Your task to perform on an android device: Check out the top rated books on Goodreads. Image 0: 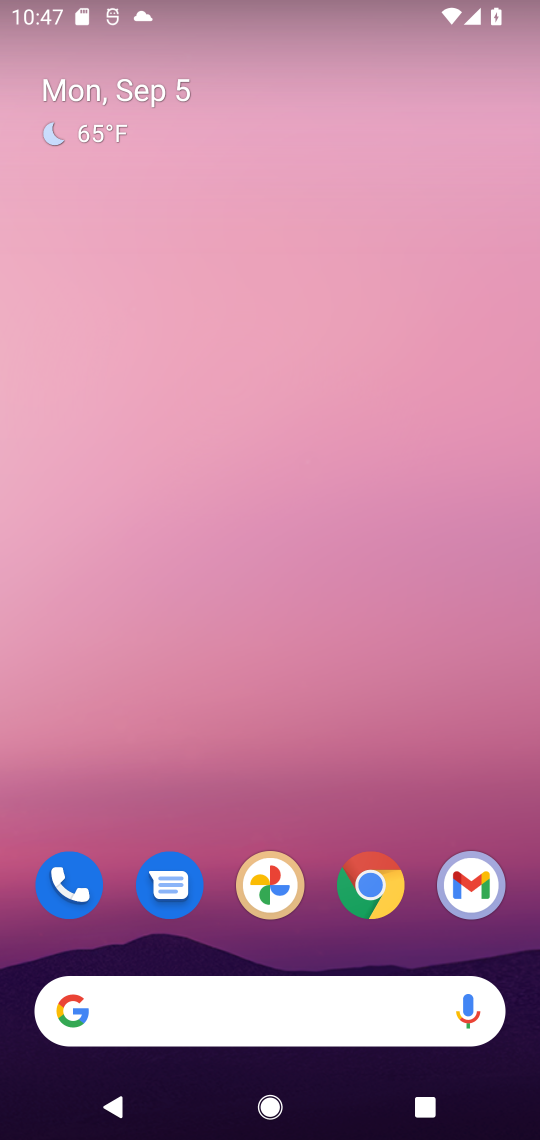
Step 0: drag from (309, 883) to (311, 101)
Your task to perform on an android device: Check out the top rated books on Goodreads. Image 1: 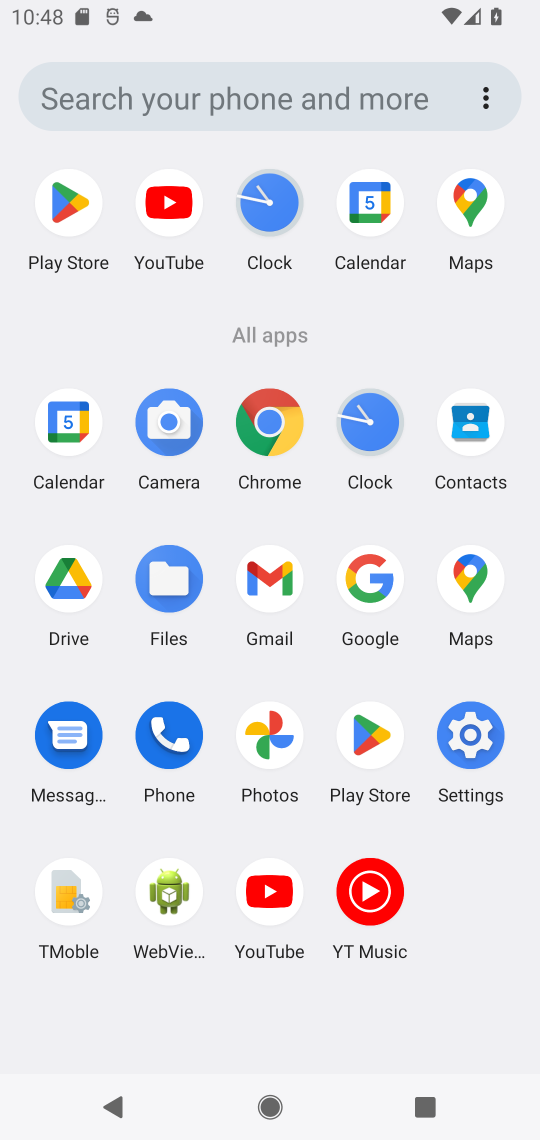
Step 1: click (371, 586)
Your task to perform on an android device: Check out the top rated books on Goodreads. Image 2: 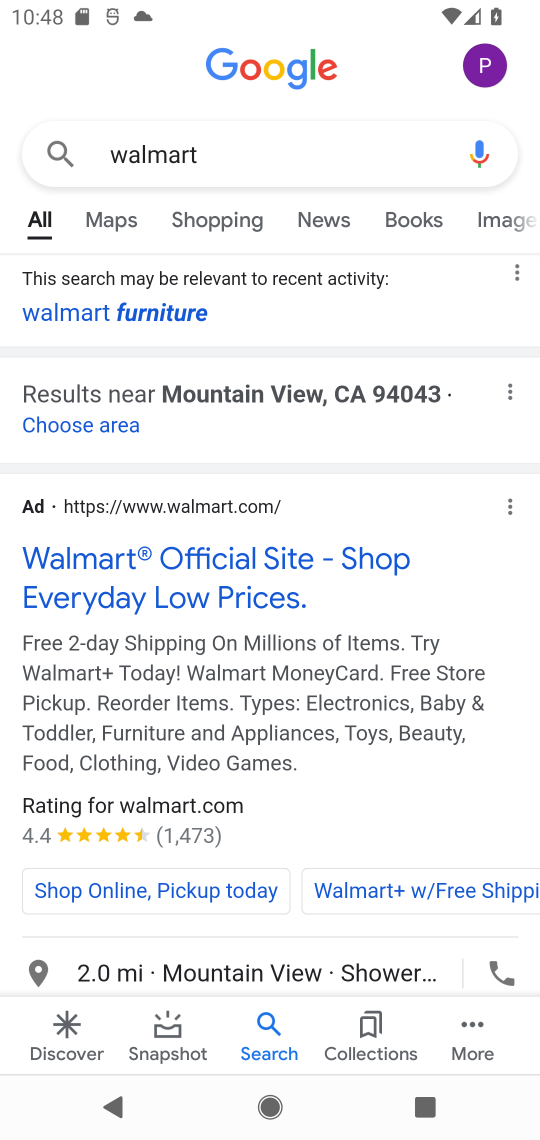
Step 2: click (299, 148)
Your task to perform on an android device: Check out the top rated books on Goodreads. Image 3: 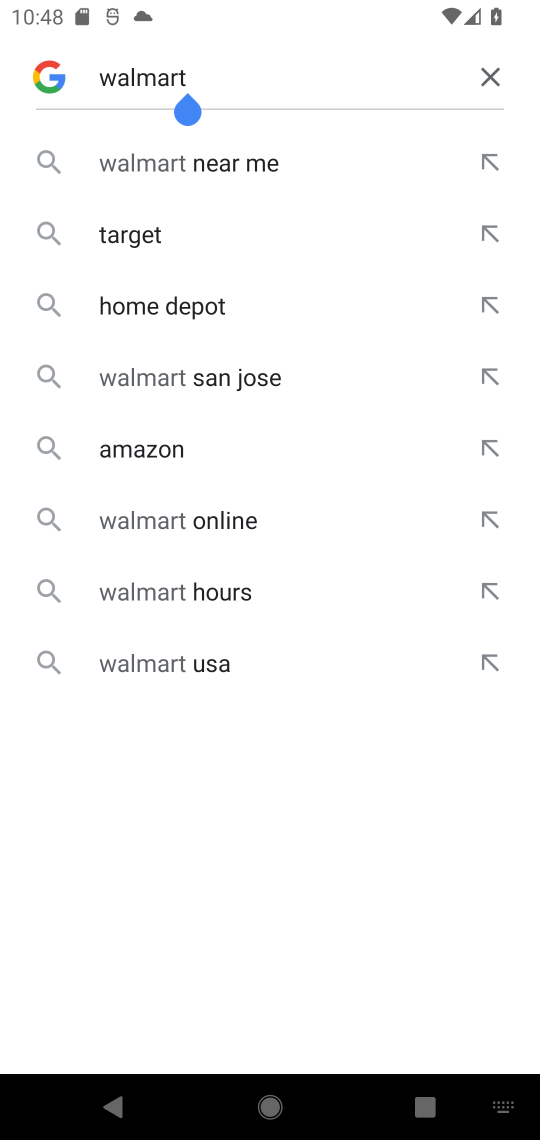
Step 3: click (490, 76)
Your task to perform on an android device: Check out the top rated books on Goodreads. Image 4: 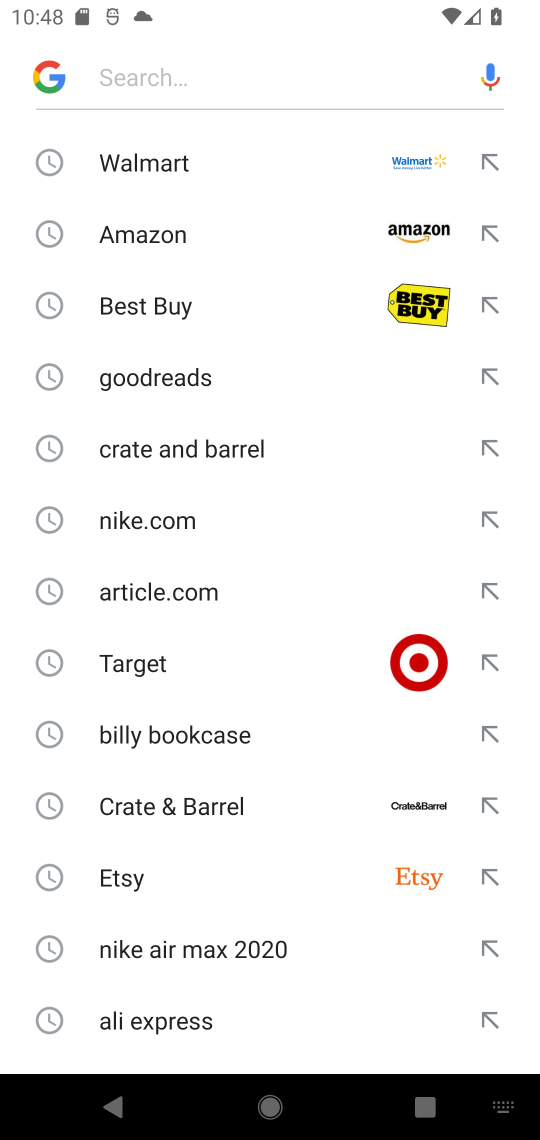
Step 4: type "Goodreads"
Your task to perform on an android device: Check out the top rated books on Goodreads. Image 5: 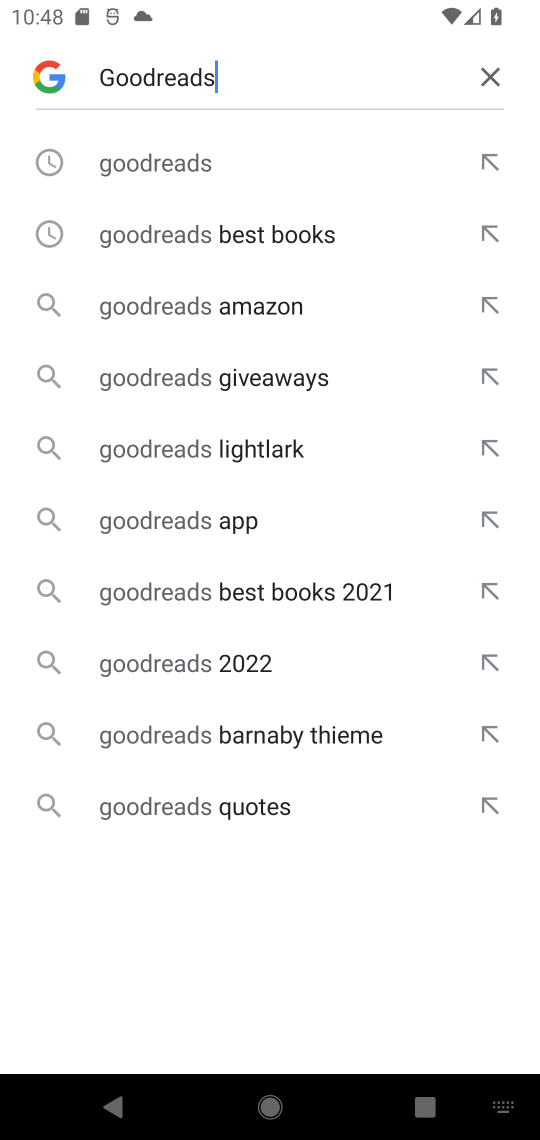
Step 5: click (176, 161)
Your task to perform on an android device: Check out the top rated books on Goodreads. Image 6: 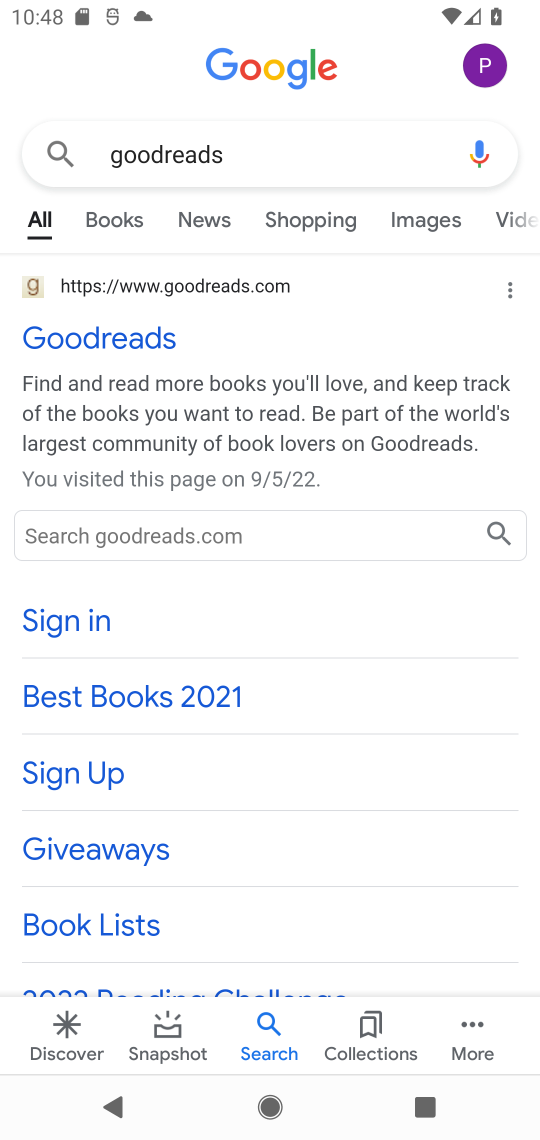
Step 6: click (85, 335)
Your task to perform on an android device: Check out the top rated books on Goodreads. Image 7: 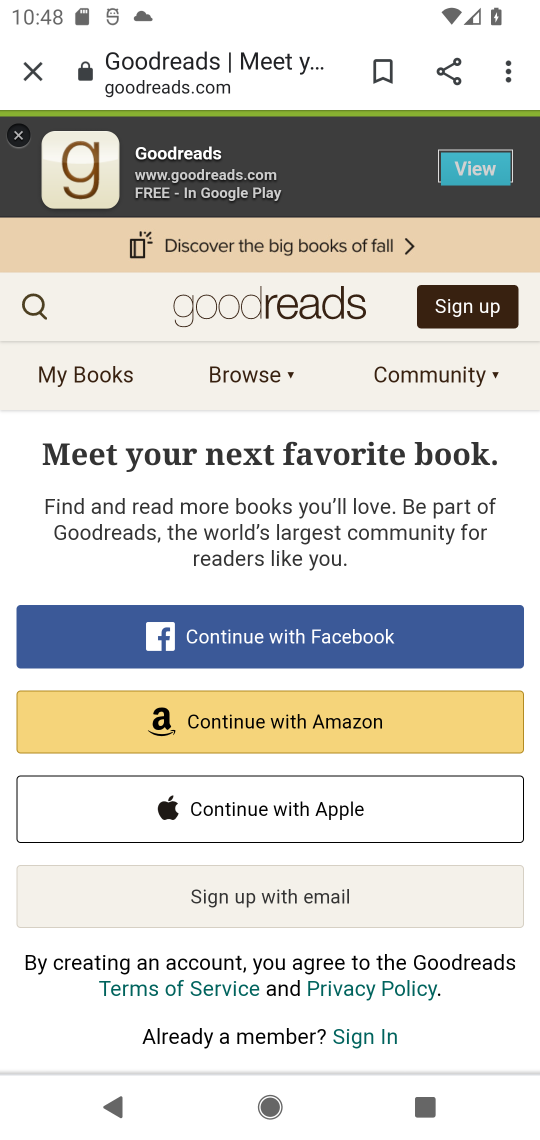
Step 7: click (33, 313)
Your task to perform on an android device: Check out the top rated books on Goodreads. Image 8: 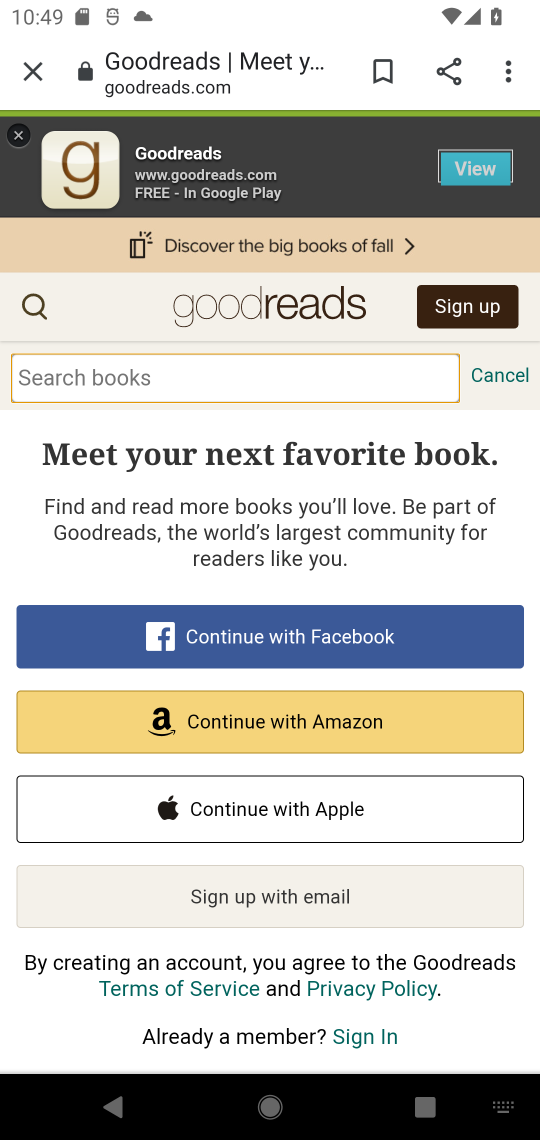
Step 8: type "books"
Your task to perform on an android device: Check out the top rated books on Goodreads. Image 9: 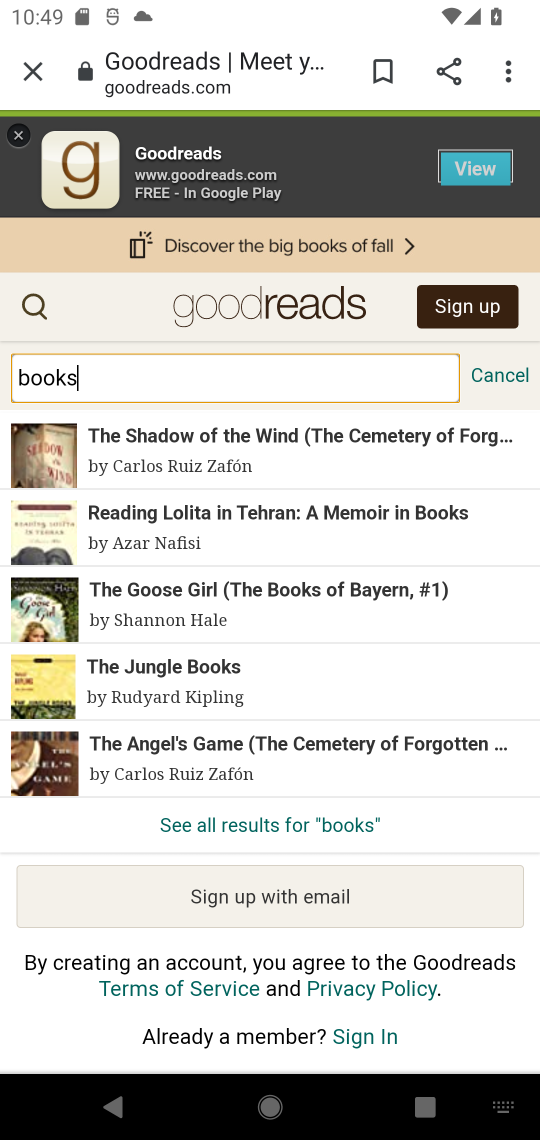
Step 9: task complete